Your task to perform on an android device: turn off picture-in-picture Image 0: 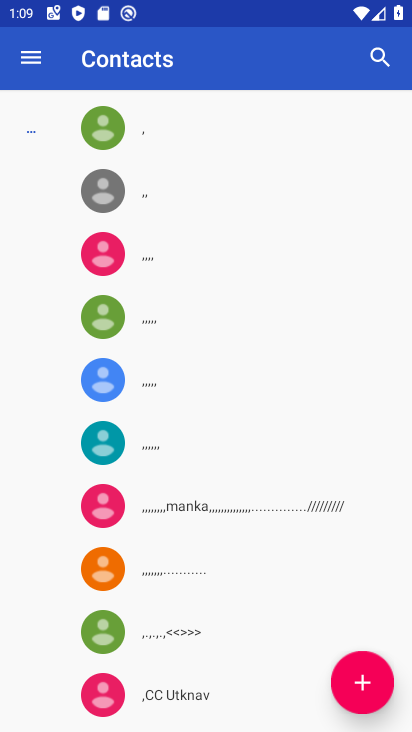
Step 0: press home button
Your task to perform on an android device: turn off picture-in-picture Image 1: 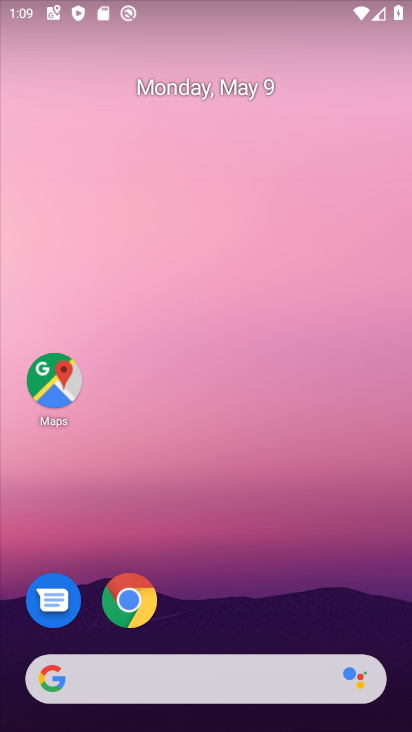
Step 1: click (130, 590)
Your task to perform on an android device: turn off picture-in-picture Image 2: 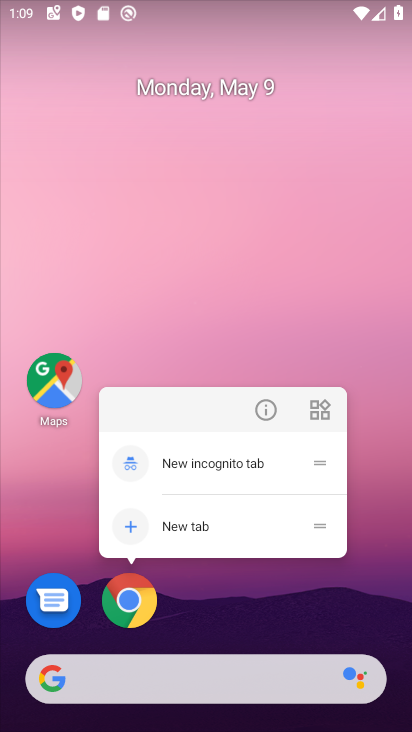
Step 2: click (266, 407)
Your task to perform on an android device: turn off picture-in-picture Image 3: 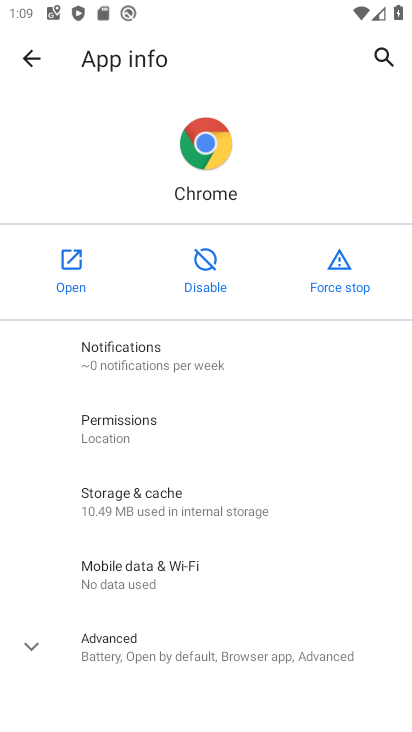
Step 3: drag from (107, 611) to (109, 148)
Your task to perform on an android device: turn off picture-in-picture Image 4: 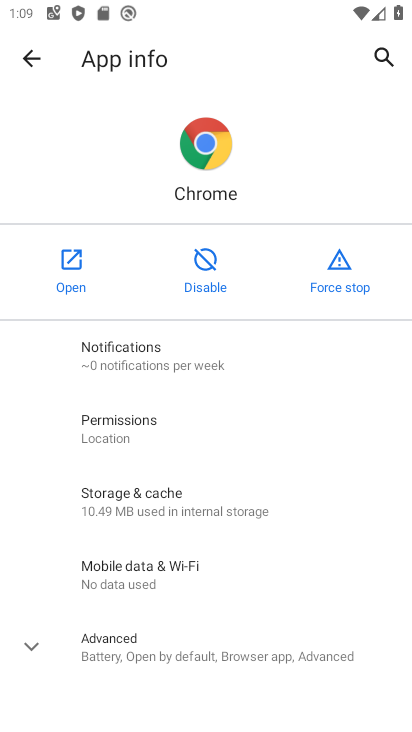
Step 4: click (165, 647)
Your task to perform on an android device: turn off picture-in-picture Image 5: 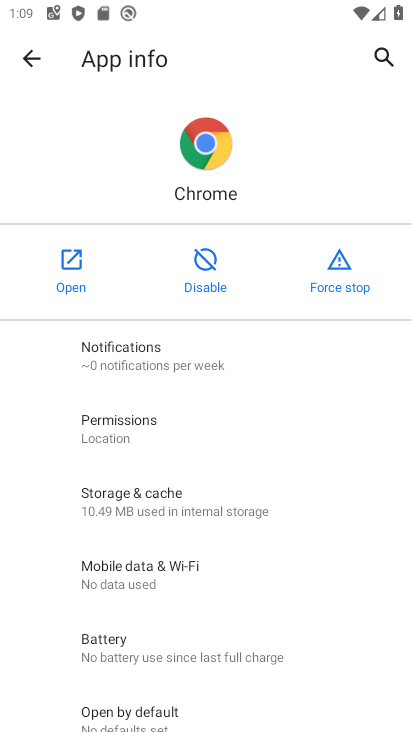
Step 5: drag from (118, 624) to (145, 141)
Your task to perform on an android device: turn off picture-in-picture Image 6: 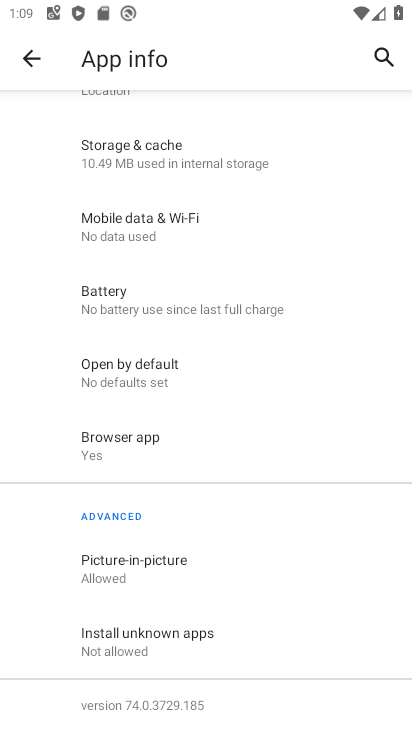
Step 6: click (88, 563)
Your task to perform on an android device: turn off picture-in-picture Image 7: 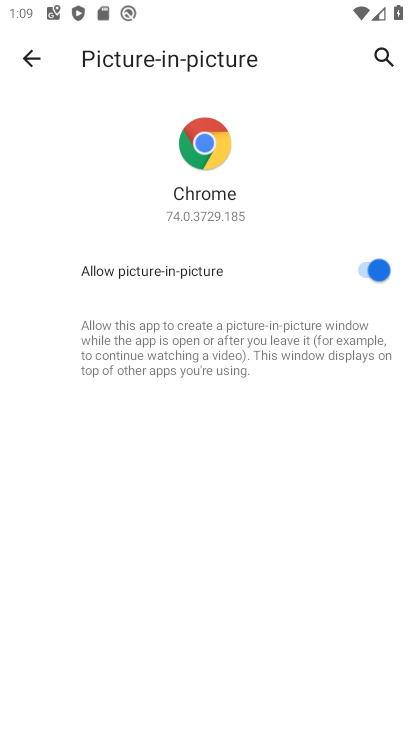
Step 7: click (374, 277)
Your task to perform on an android device: turn off picture-in-picture Image 8: 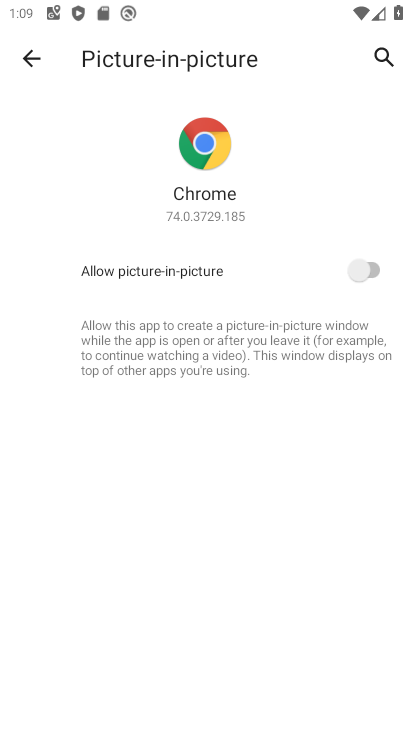
Step 8: task complete